Your task to perform on an android device: set the stopwatch Image 0: 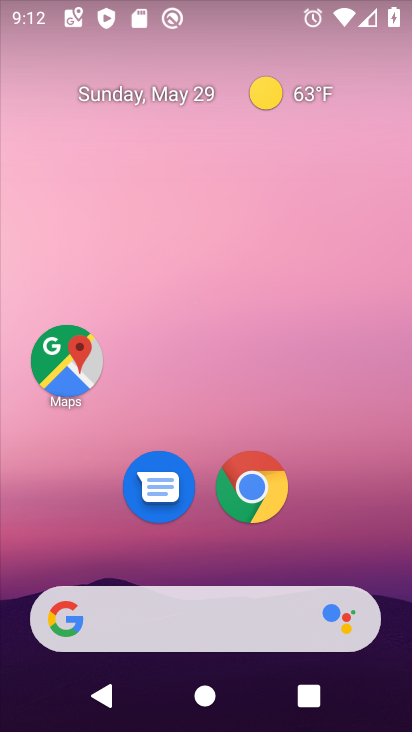
Step 0: drag from (278, 572) to (360, 34)
Your task to perform on an android device: set the stopwatch Image 1: 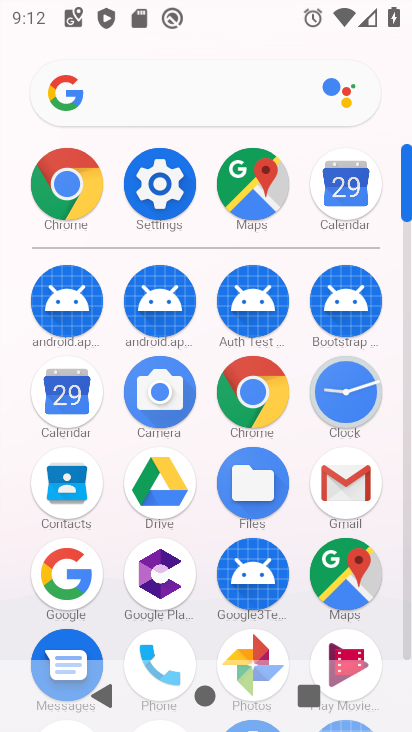
Step 1: click (348, 398)
Your task to perform on an android device: set the stopwatch Image 2: 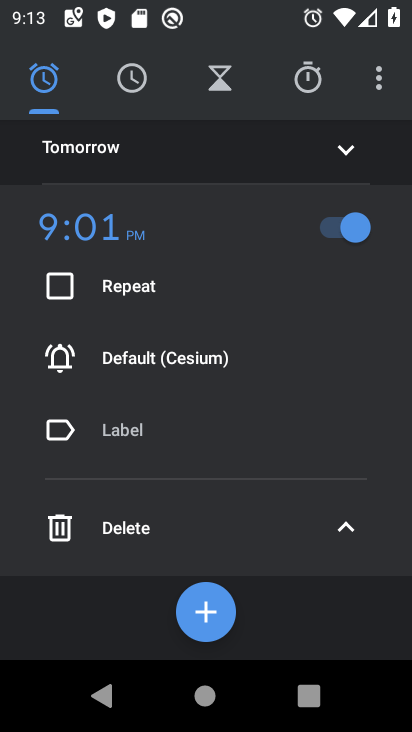
Step 2: click (309, 80)
Your task to perform on an android device: set the stopwatch Image 3: 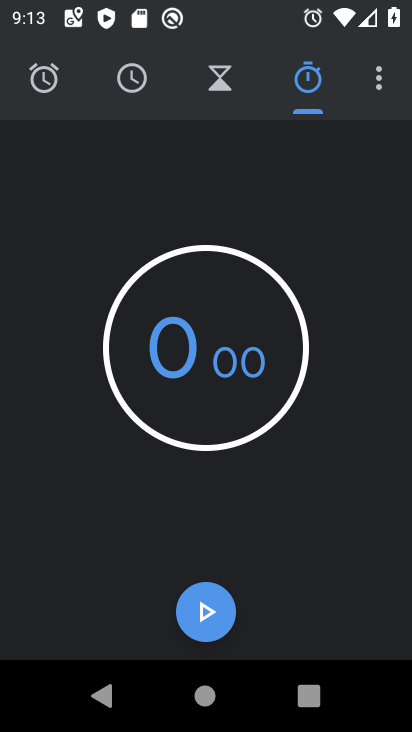
Step 3: click (210, 623)
Your task to perform on an android device: set the stopwatch Image 4: 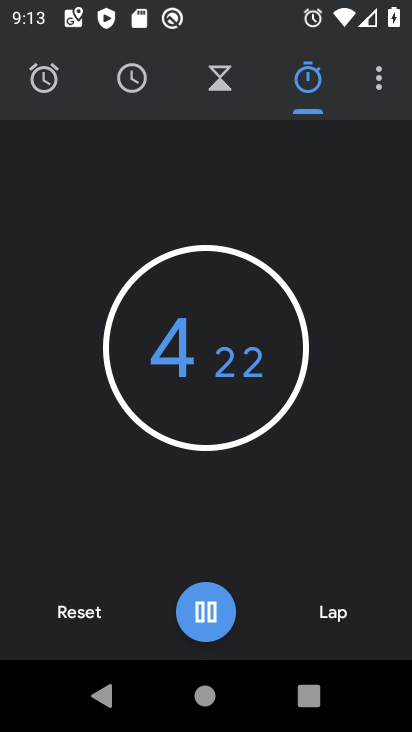
Step 4: task complete